Your task to perform on an android device: open sync settings in chrome Image 0: 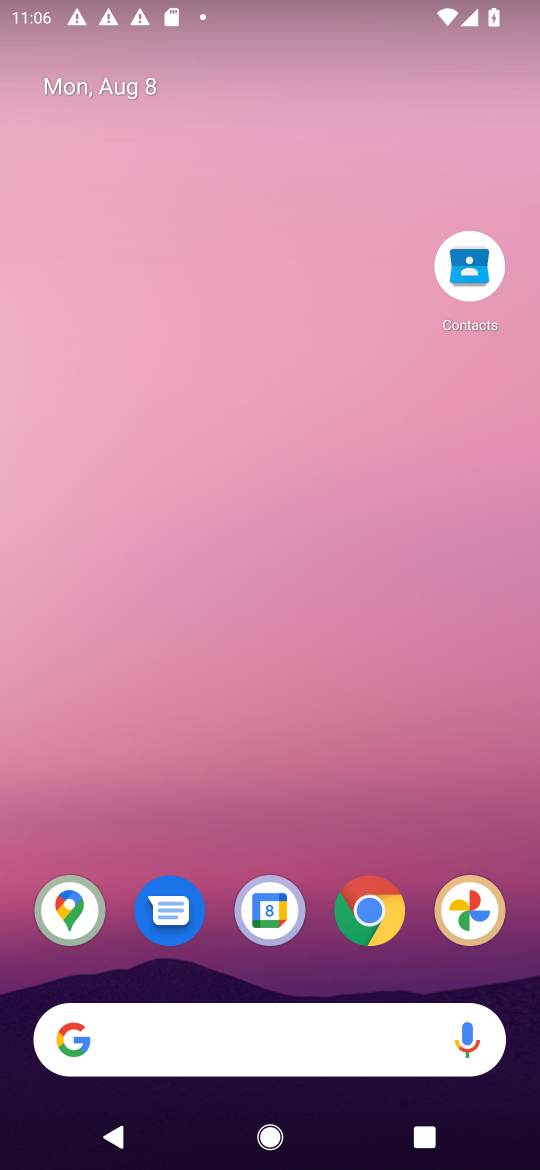
Step 0: click (385, 939)
Your task to perform on an android device: open sync settings in chrome Image 1: 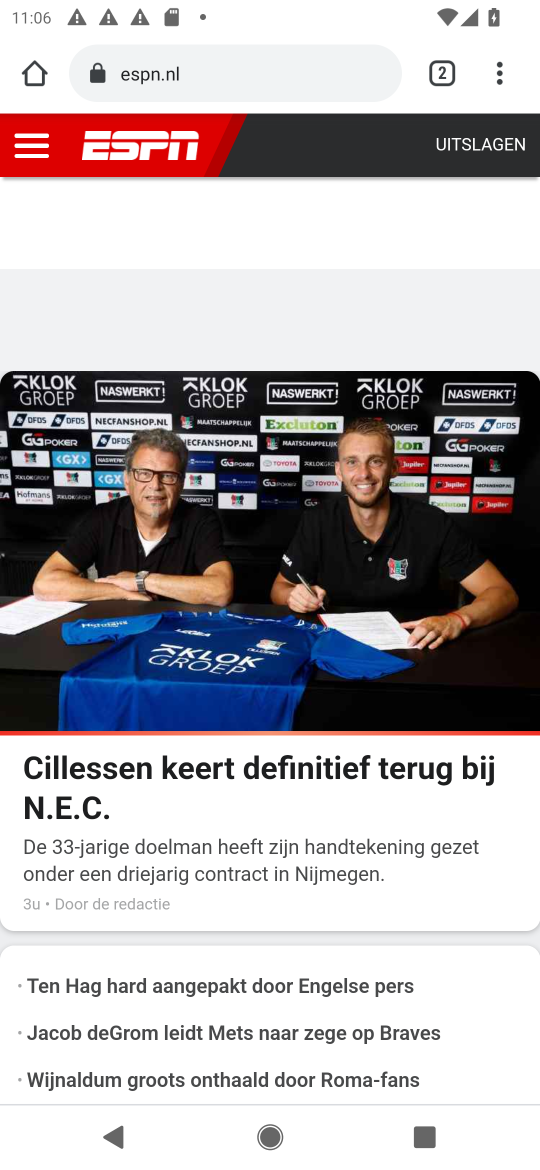
Step 1: click (494, 84)
Your task to perform on an android device: open sync settings in chrome Image 2: 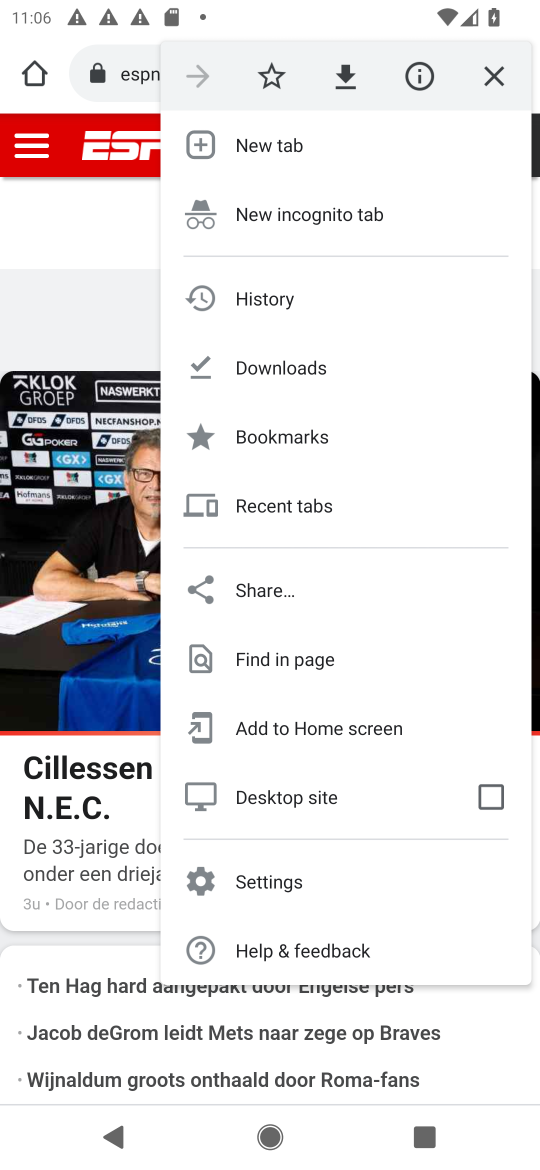
Step 2: click (264, 884)
Your task to perform on an android device: open sync settings in chrome Image 3: 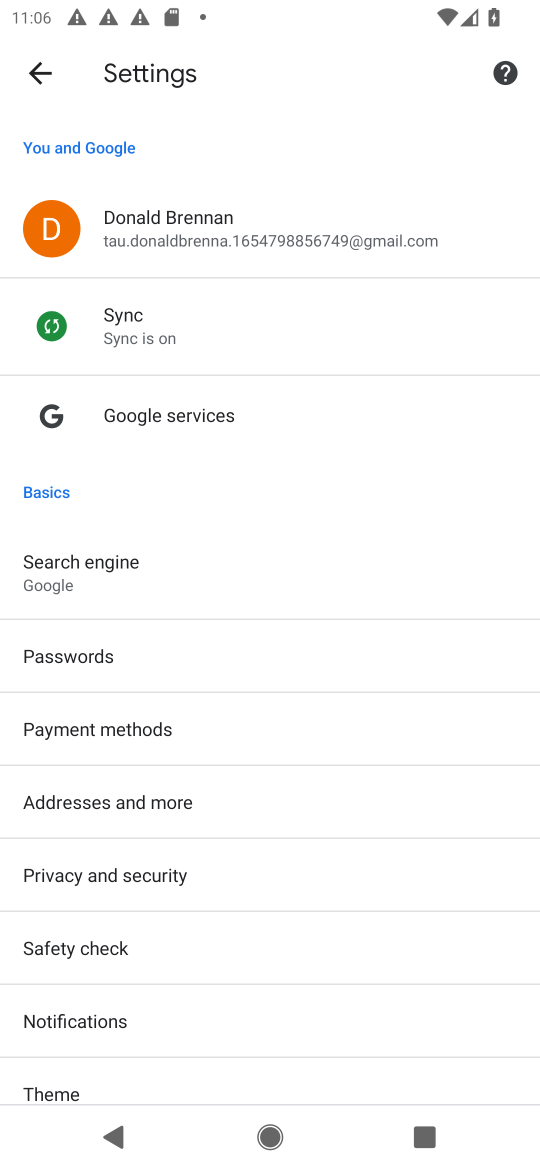
Step 3: click (201, 339)
Your task to perform on an android device: open sync settings in chrome Image 4: 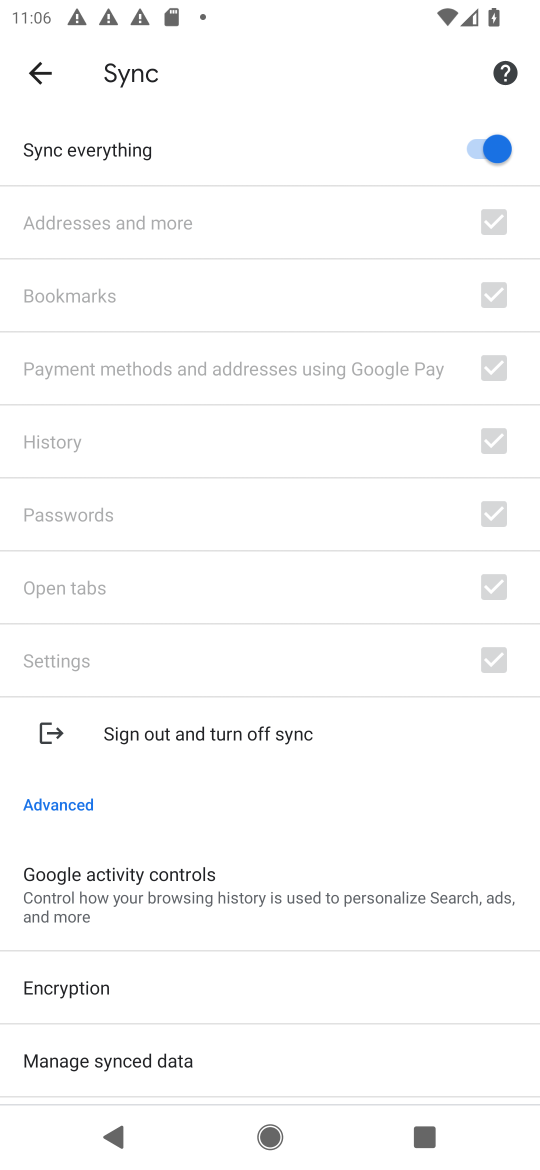
Step 4: task complete